Your task to perform on an android device: turn on translation in the chrome app Image 0: 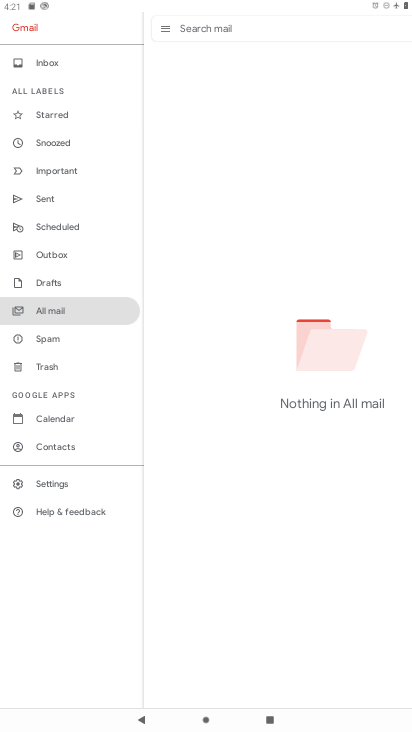
Step 0: press home button
Your task to perform on an android device: turn on translation in the chrome app Image 1: 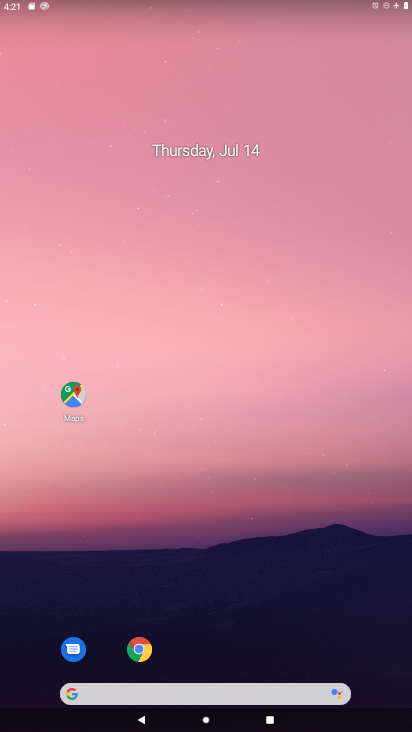
Step 1: drag from (207, 665) to (206, 33)
Your task to perform on an android device: turn on translation in the chrome app Image 2: 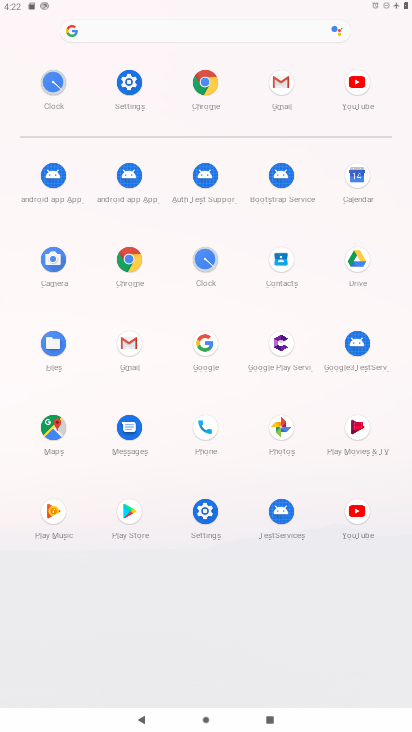
Step 2: click (130, 264)
Your task to perform on an android device: turn on translation in the chrome app Image 3: 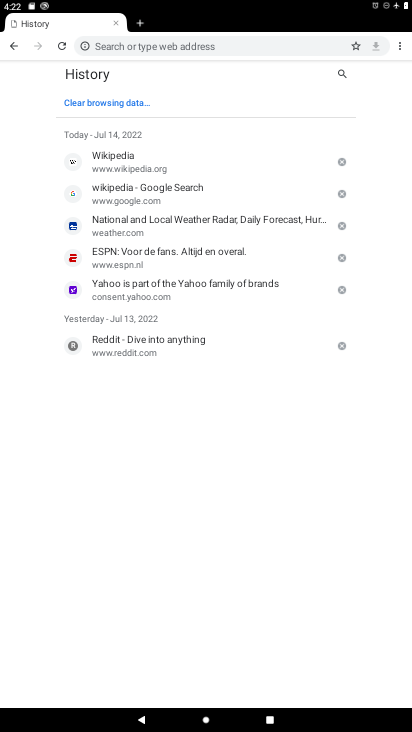
Step 3: click (398, 39)
Your task to perform on an android device: turn on translation in the chrome app Image 4: 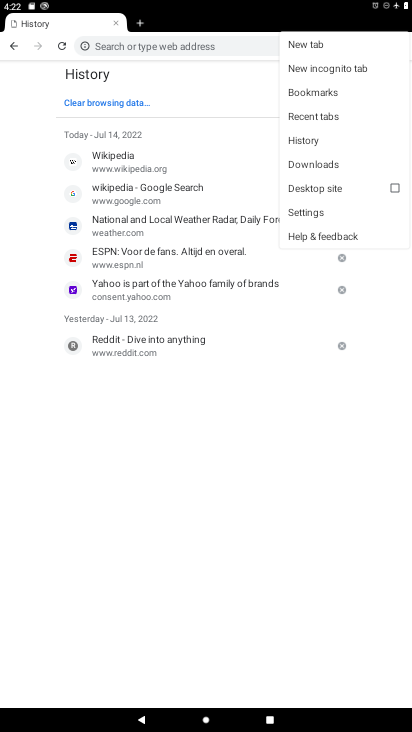
Step 4: click (303, 212)
Your task to perform on an android device: turn on translation in the chrome app Image 5: 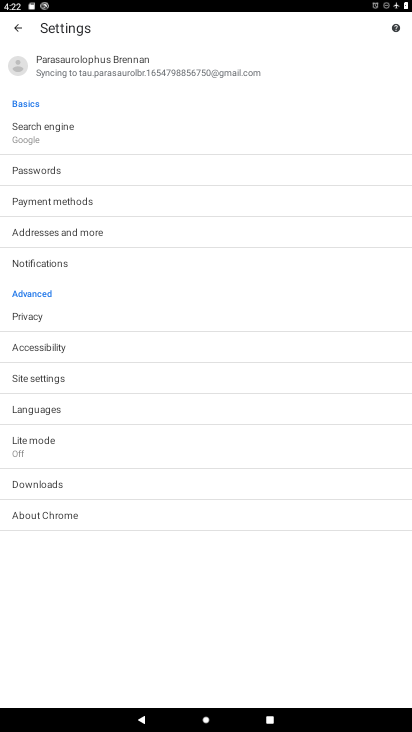
Step 5: click (46, 412)
Your task to perform on an android device: turn on translation in the chrome app Image 6: 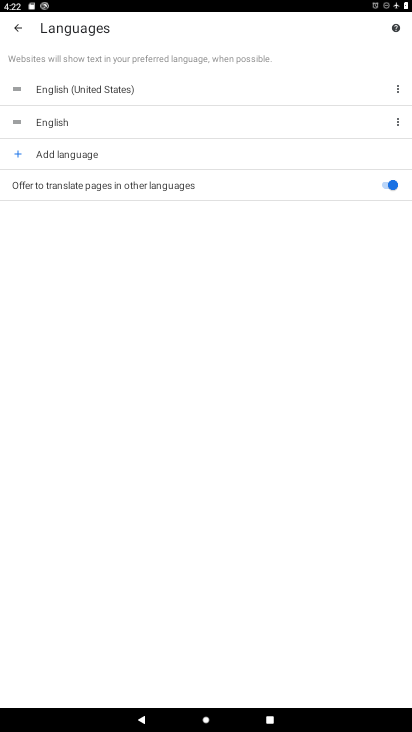
Step 6: task complete